Your task to perform on an android device: open device folders in google photos Image 0: 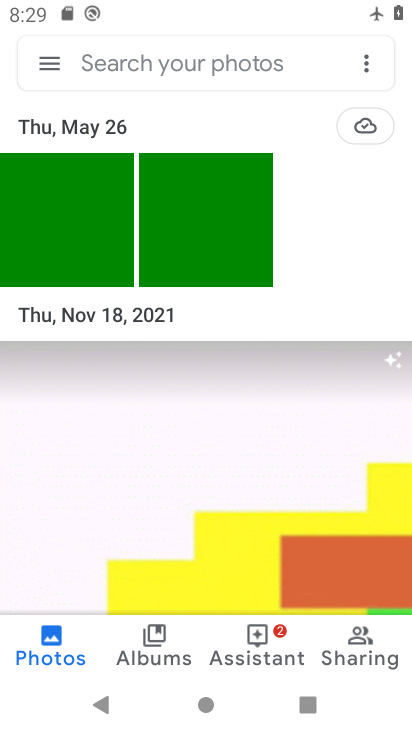
Step 0: task complete